Your task to perform on an android device: Open maps Image 0: 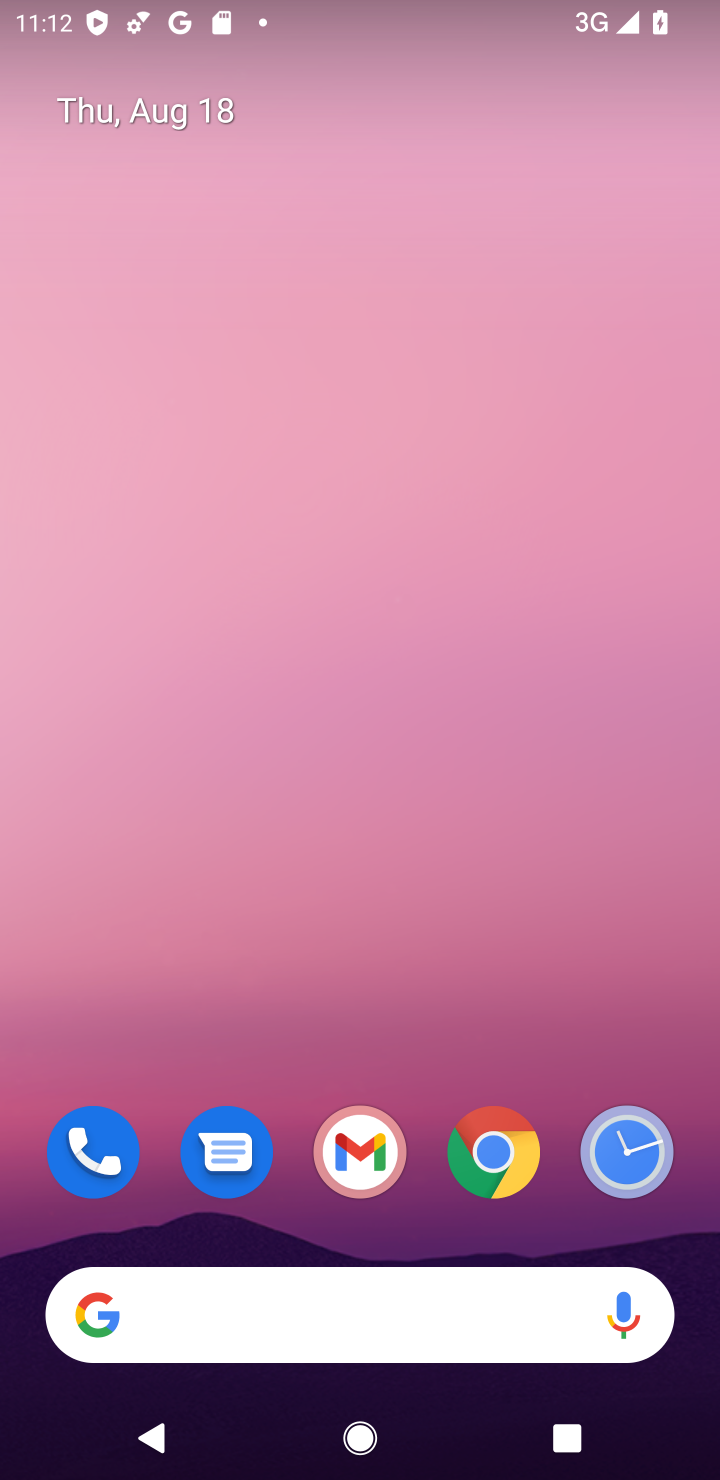
Step 0: drag from (456, 937) to (506, 0)
Your task to perform on an android device: Open maps Image 1: 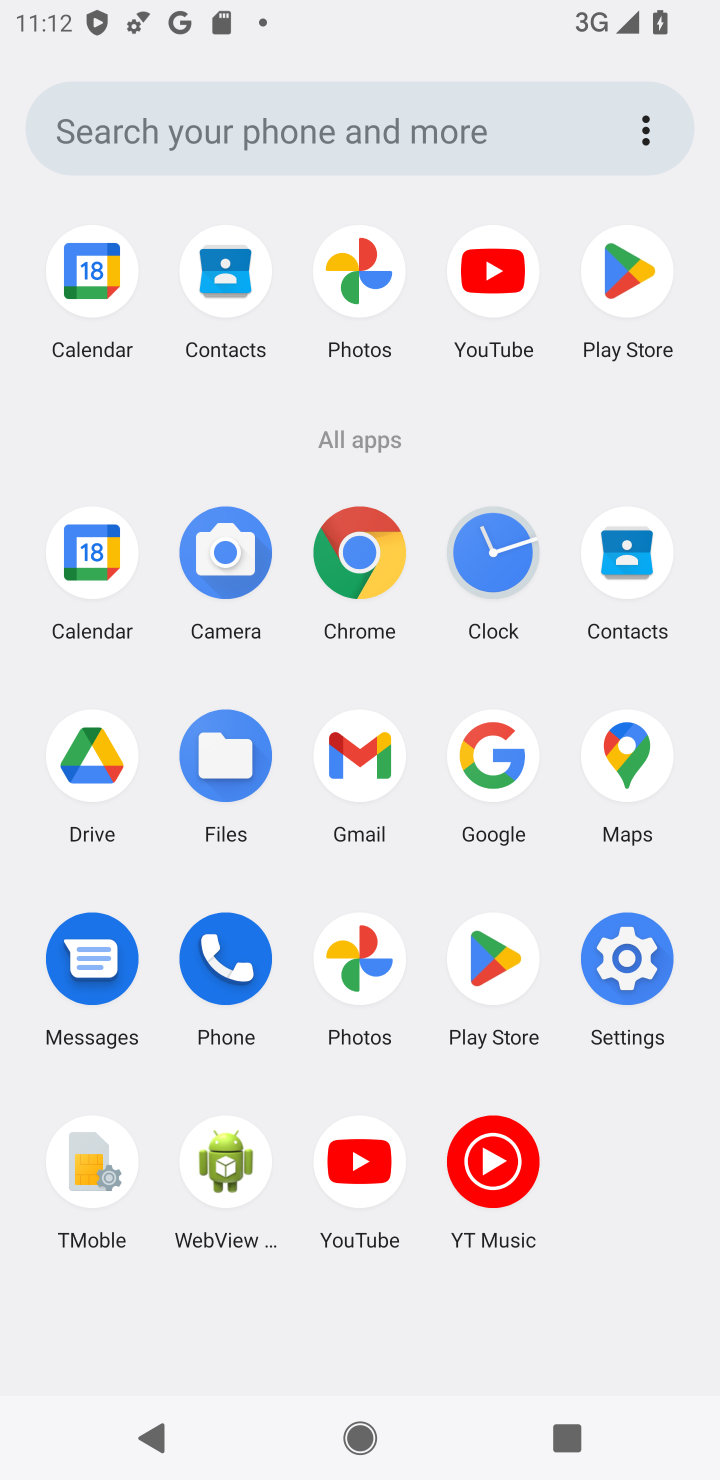
Step 1: click (627, 751)
Your task to perform on an android device: Open maps Image 2: 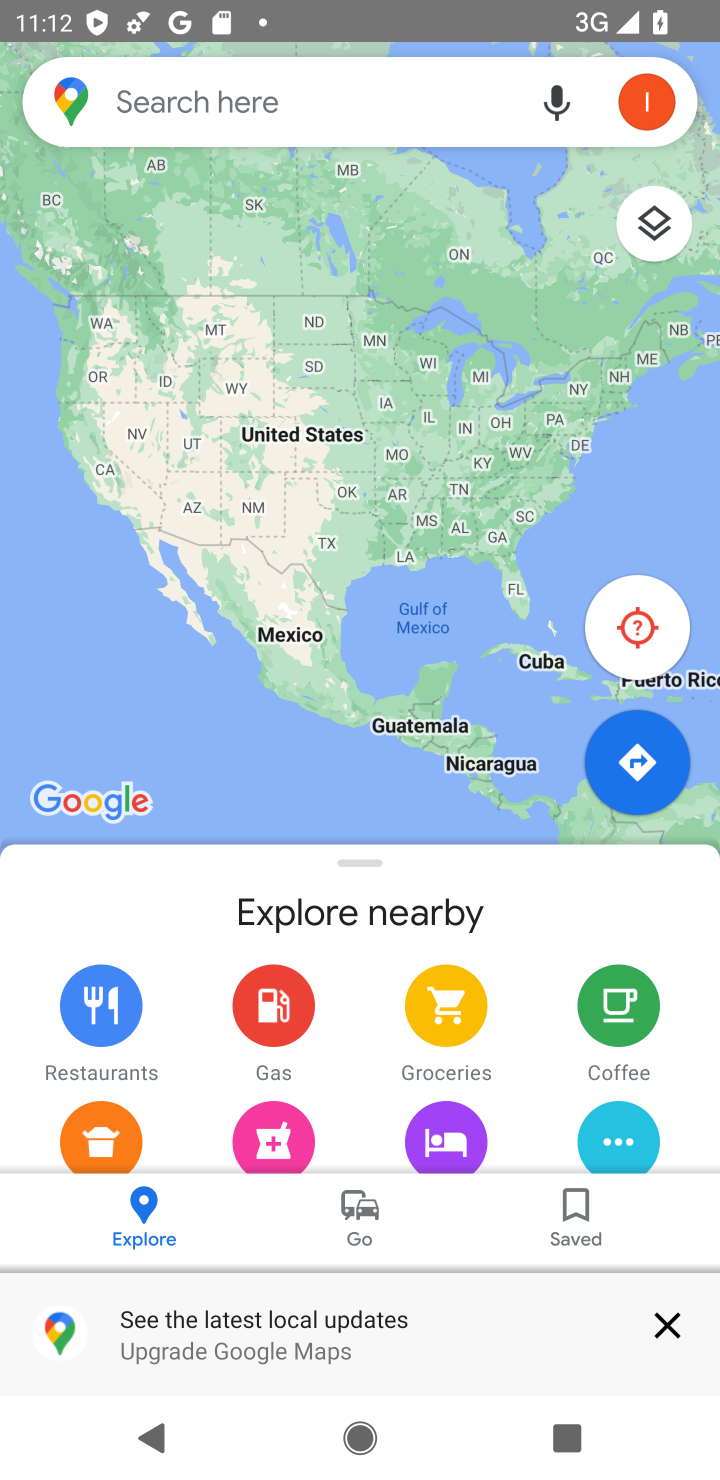
Step 2: task complete